Your task to perform on an android device: Show me productivity apps on the Play Store Image 0: 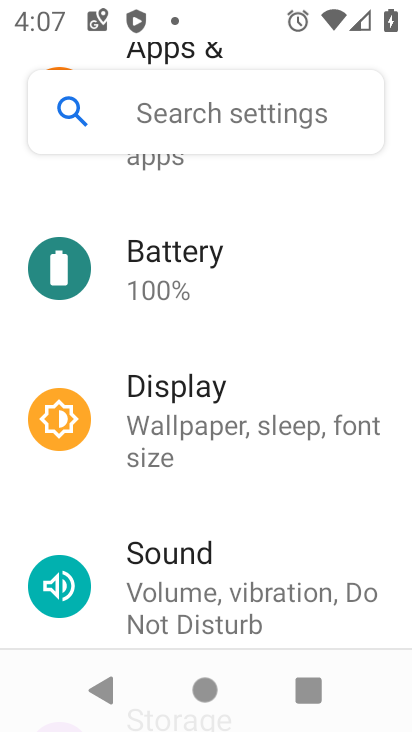
Step 0: press home button
Your task to perform on an android device: Show me productivity apps on the Play Store Image 1: 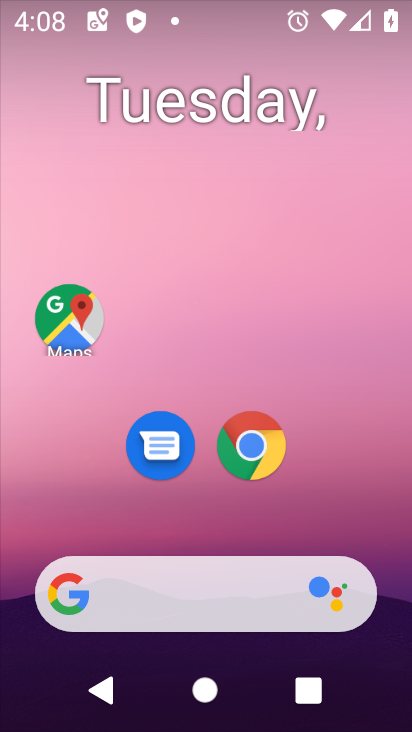
Step 1: drag from (338, 537) to (289, 59)
Your task to perform on an android device: Show me productivity apps on the Play Store Image 2: 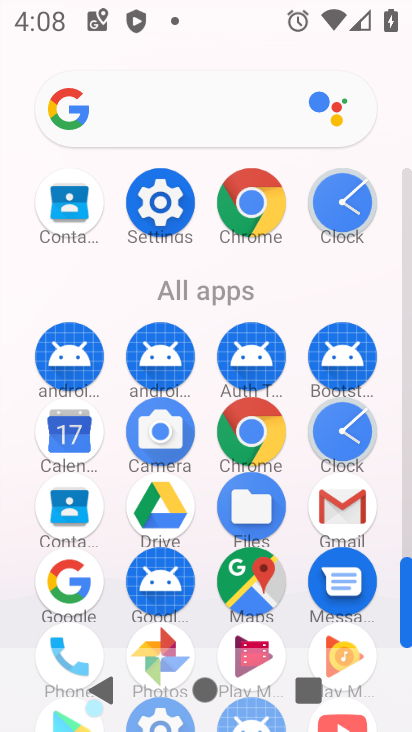
Step 2: drag from (288, 562) to (274, 275)
Your task to perform on an android device: Show me productivity apps on the Play Store Image 3: 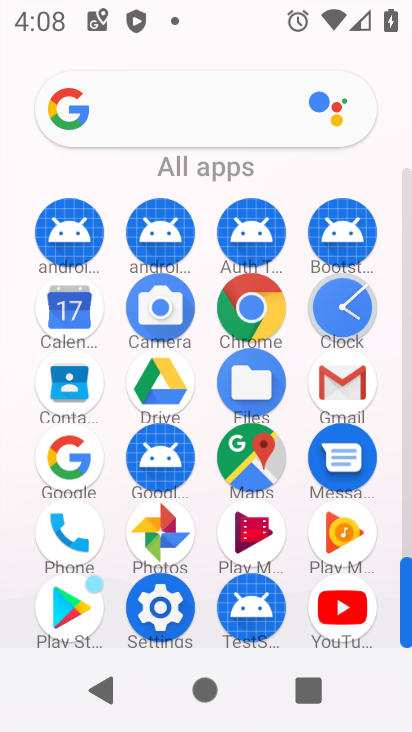
Step 3: click (72, 595)
Your task to perform on an android device: Show me productivity apps on the Play Store Image 4: 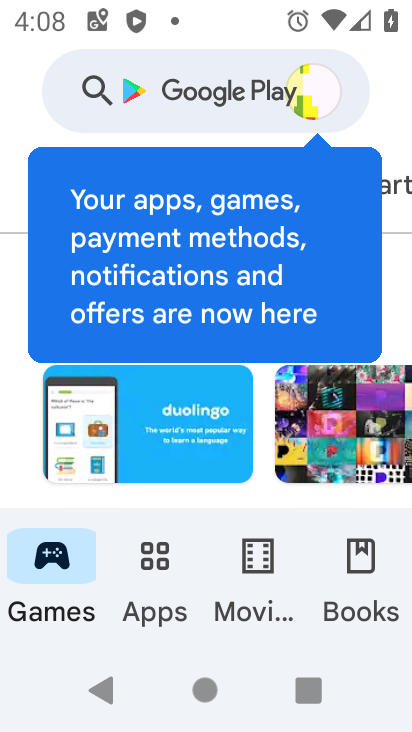
Step 4: click (159, 573)
Your task to perform on an android device: Show me productivity apps on the Play Store Image 5: 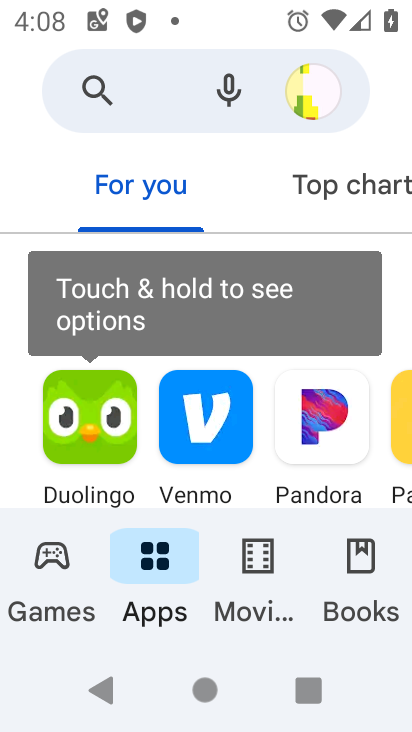
Step 5: drag from (266, 522) to (361, 61)
Your task to perform on an android device: Show me productivity apps on the Play Store Image 6: 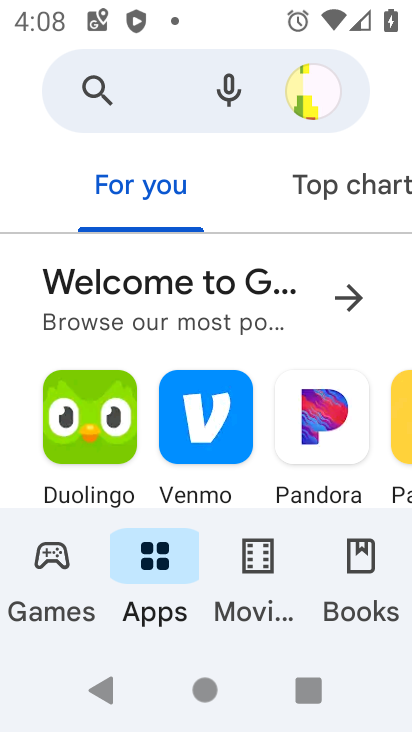
Step 6: drag from (320, 483) to (353, 96)
Your task to perform on an android device: Show me productivity apps on the Play Store Image 7: 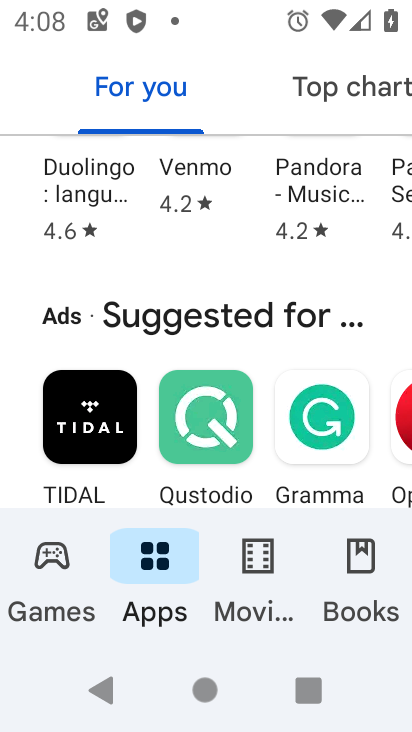
Step 7: drag from (312, 470) to (317, 122)
Your task to perform on an android device: Show me productivity apps on the Play Store Image 8: 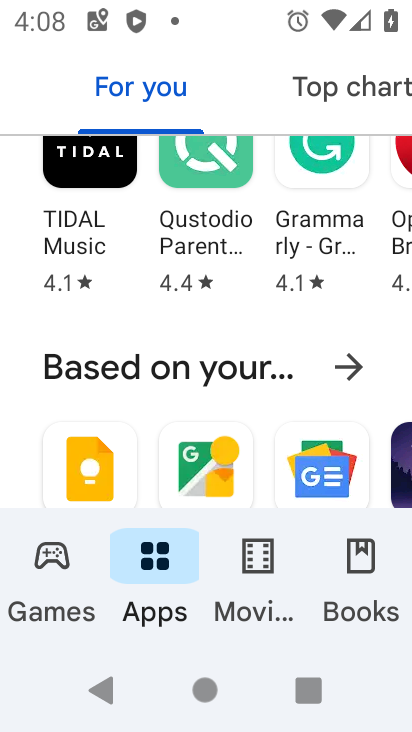
Step 8: drag from (308, 451) to (313, 172)
Your task to perform on an android device: Show me productivity apps on the Play Store Image 9: 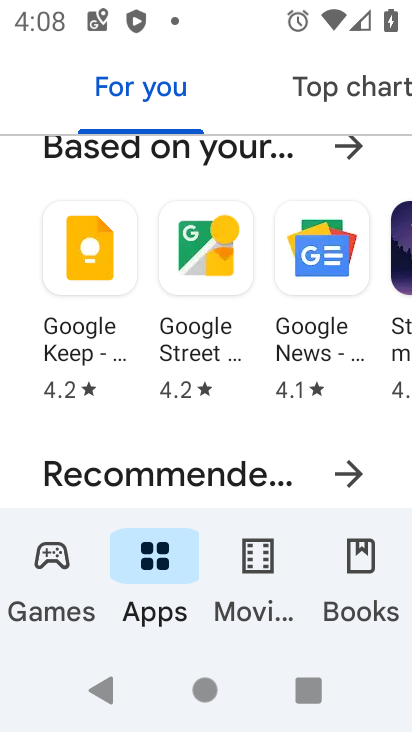
Step 9: drag from (330, 449) to (337, 140)
Your task to perform on an android device: Show me productivity apps on the Play Store Image 10: 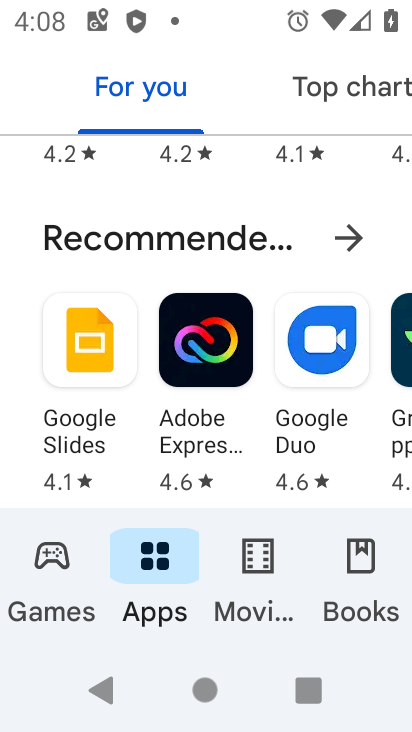
Step 10: drag from (289, 464) to (306, 9)
Your task to perform on an android device: Show me productivity apps on the Play Store Image 11: 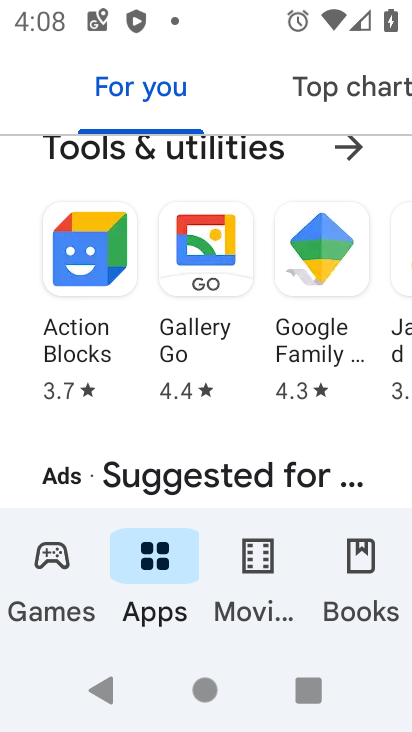
Step 11: drag from (258, 507) to (286, 127)
Your task to perform on an android device: Show me productivity apps on the Play Store Image 12: 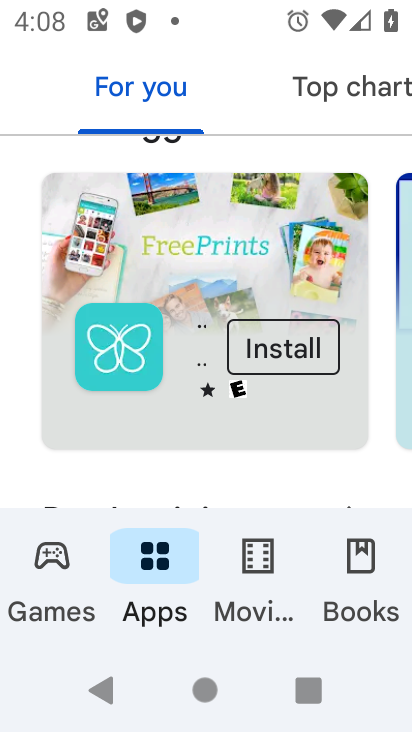
Step 12: drag from (346, 484) to (338, 115)
Your task to perform on an android device: Show me productivity apps on the Play Store Image 13: 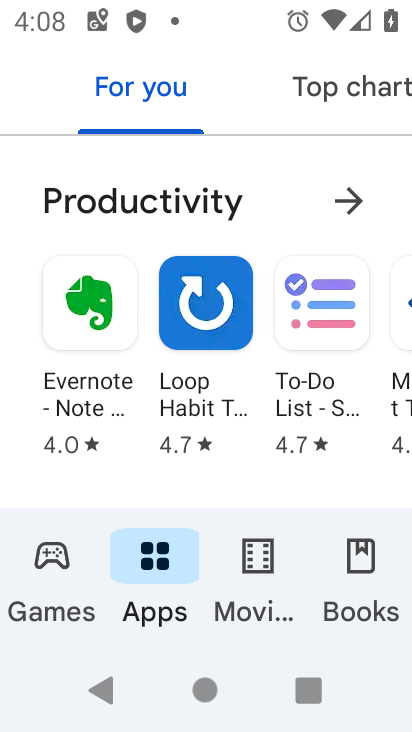
Step 13: click (346, 196)
Your task to perform on an android device: Show me productivity apps on the Play Store Image 14: 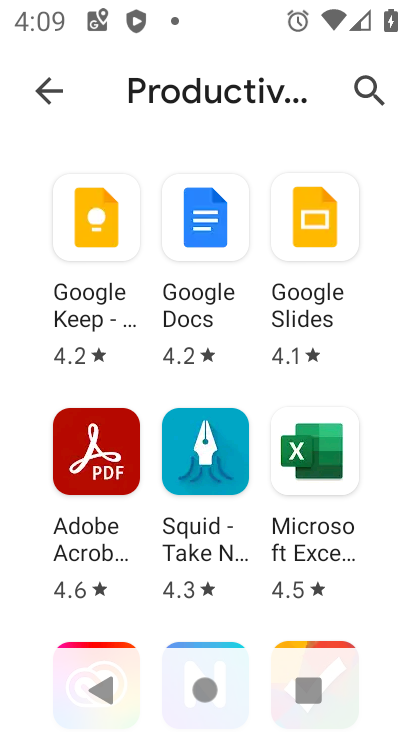
Step 14: task complete